Your task to perform on an android device: allow notifications from all sites in the chrome app Image 0: 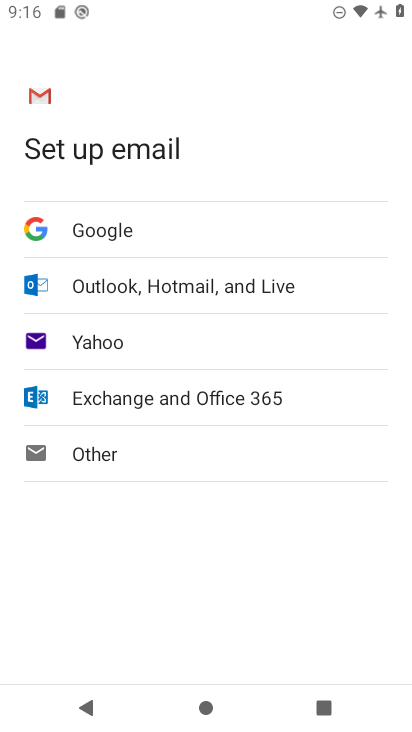
Step 0: press home button
Your task to perform on an android device: allow notifications from all sites in the chrome app Image 1: 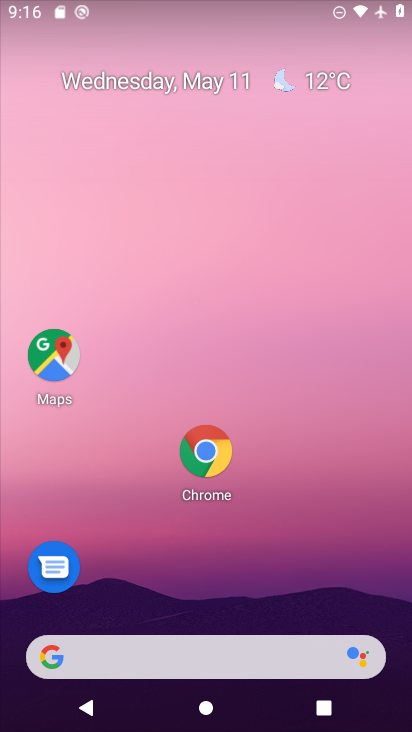
Step 1: drag from (146, 655) to (284, 223)
Your task to perform on an android device: allow notifications from all sites in the chrome app Image 2: 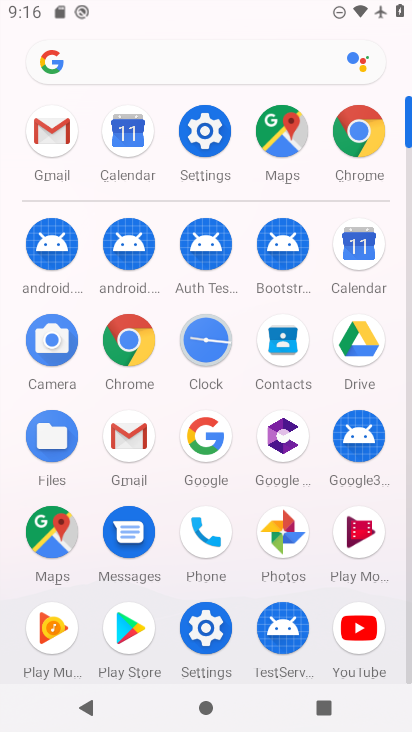
Step 2: click (362, 141)
Your task to perform on an android device: allow notifications from all sites in the chrome app Image 3: 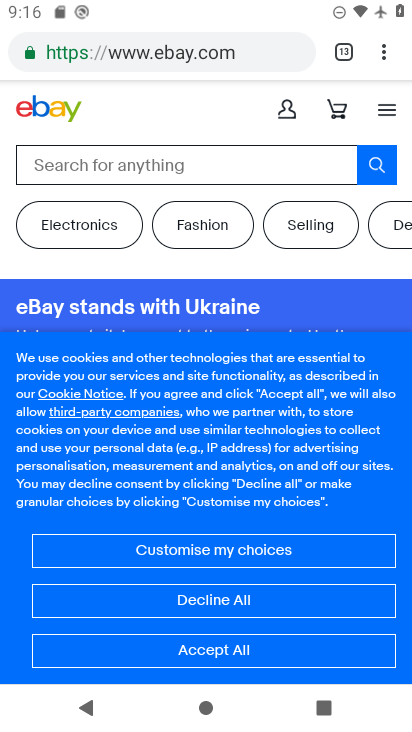
Step 3: drag from (383, 52) to (248, 601)
Your task to perform on an android device: allow notifications from all sites in the chrome app Image 4: 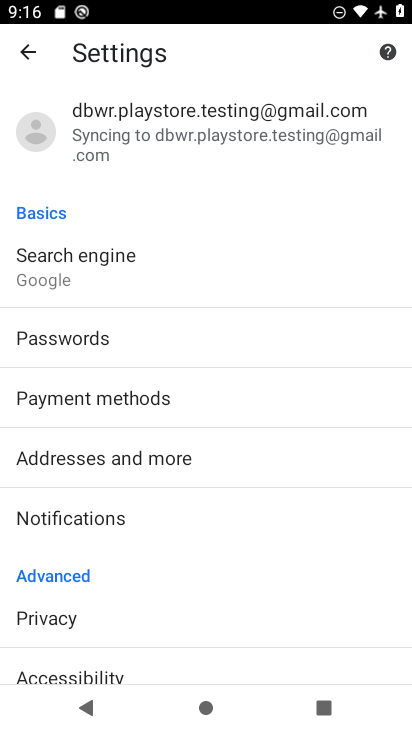
Step 4: drag from (181, 593) to (273, 223)
Your task to perform on an android device: allow notifications from all sites in the chrome app Image 5: 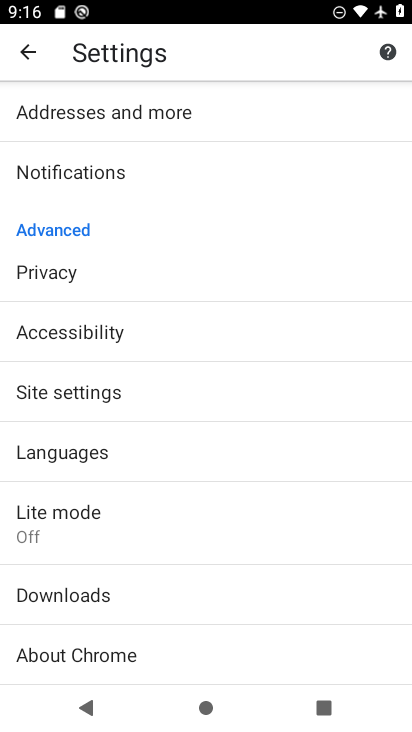
Step 5: click (54, 391)
Your task to perform on an android device: allow notifications from all sites in the chrome app Image 6: 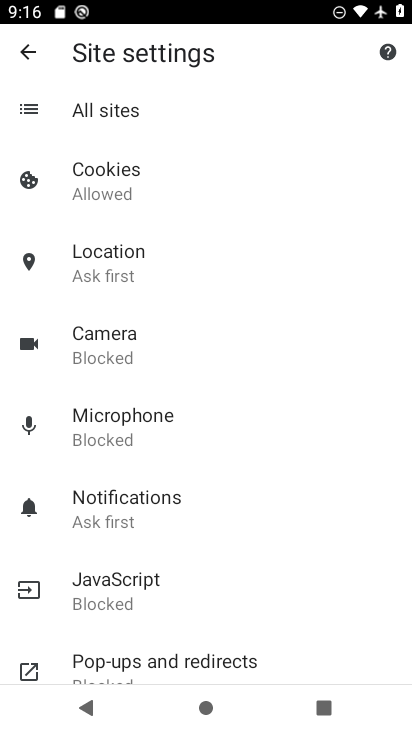
Step 6: click (140, 510)
Your task to perform on an android device: allow notifications from all sites in the chrome app Image 7: 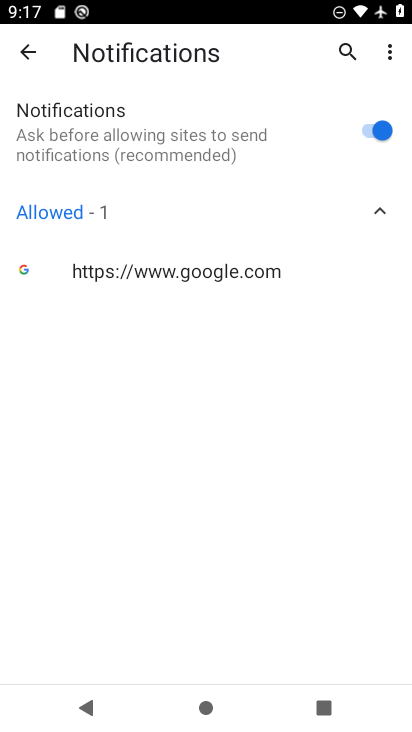
Step 7: task complete